Your task to perform on an android device: read, delete, or share a saved page in the chrome app Image 0: 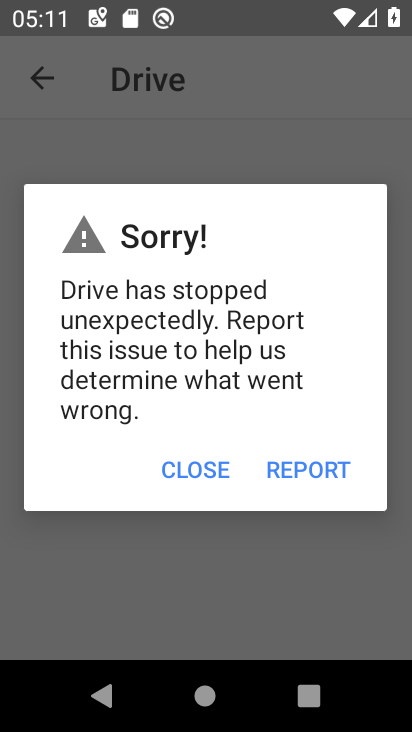
Step 0: press home button
Your task to perform on an android device: read, delete, or share a saved page in the chrome app Image 1: 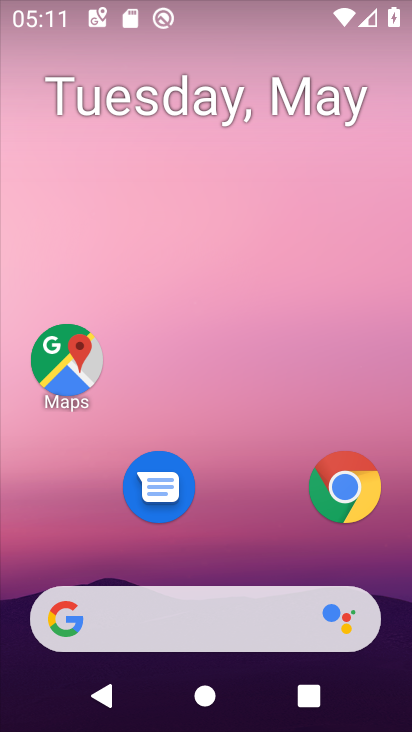
Step 1: click (336, 496)
Your task to perform on an android device: read, delete, or share a saved page in the chrome app Image 2: 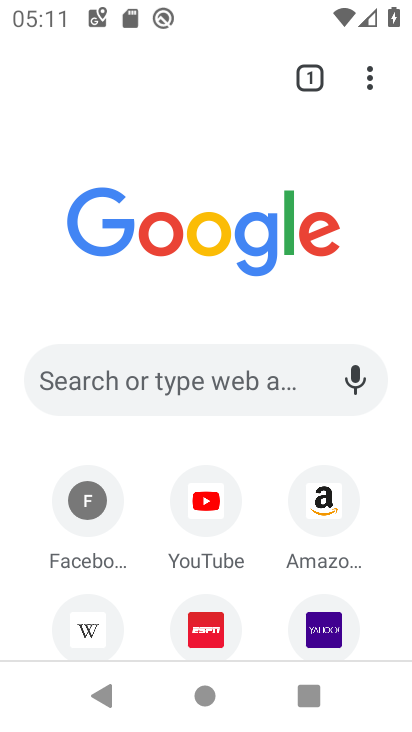
Step 2: click (364, 79)
Your task to perform on an android device: read, delete, or share a saved page in the chrome app Image 3: 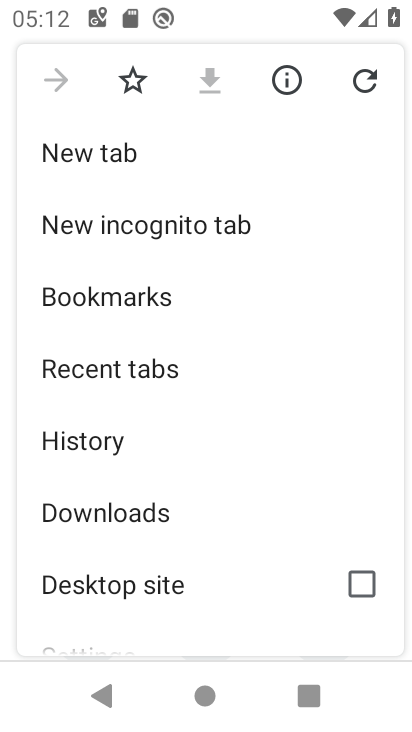
Step 3: click (195, 505)
Your task to perform on an android device: read, delete, or share a saved page in the chrome app Image 4: 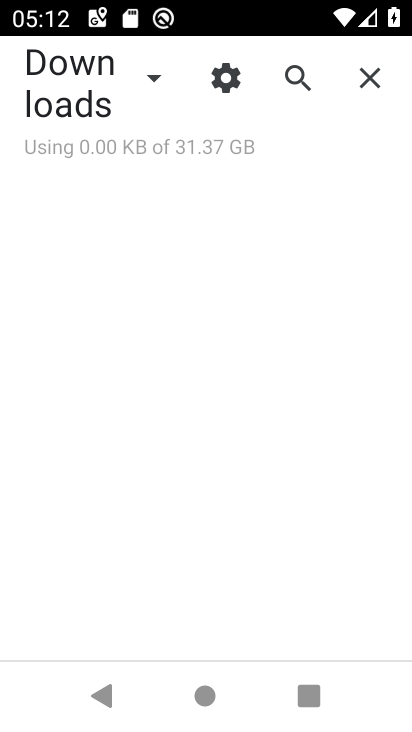
Step 4: task complete